Your task to perform on an android device: Turn on the flashlight Image 0: 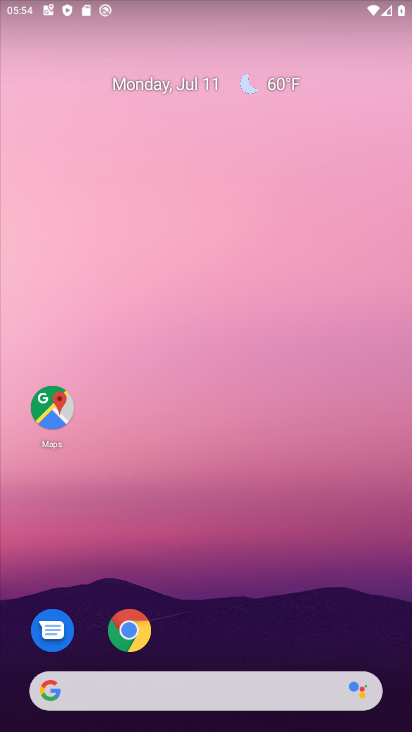
Step 0: click (187, 474)
Your task to perform on an android device: Turn on the flashlight Image 1: 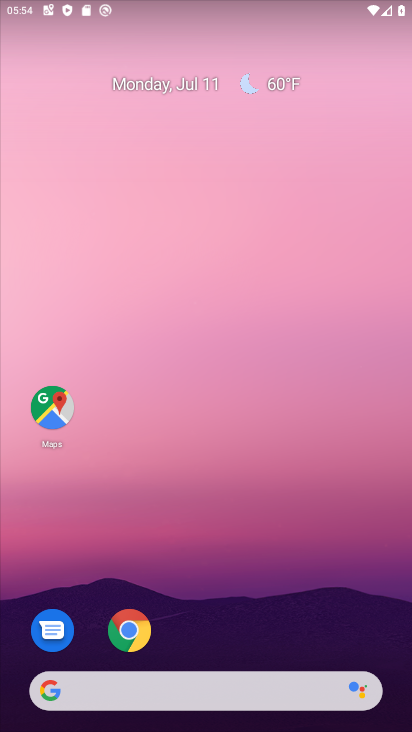
Step 1: drag from (251, 339) to (205, 146)
Your task to perform on an android device: Turn on the flashlight Image 2: 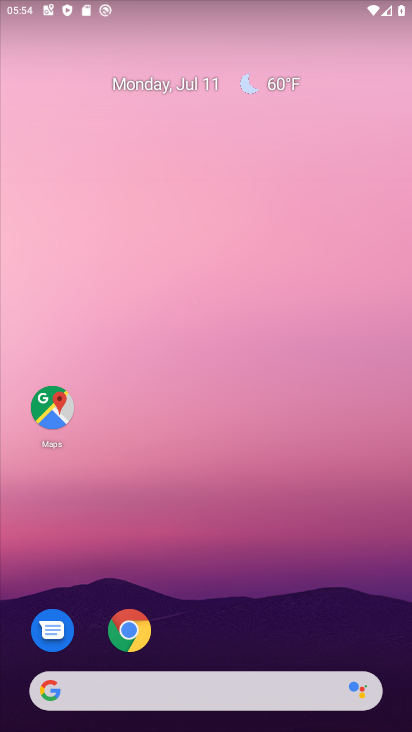
Step 2: click (205, 146)
Your task to perform on an android device: Turn on the flashlight Image 3: 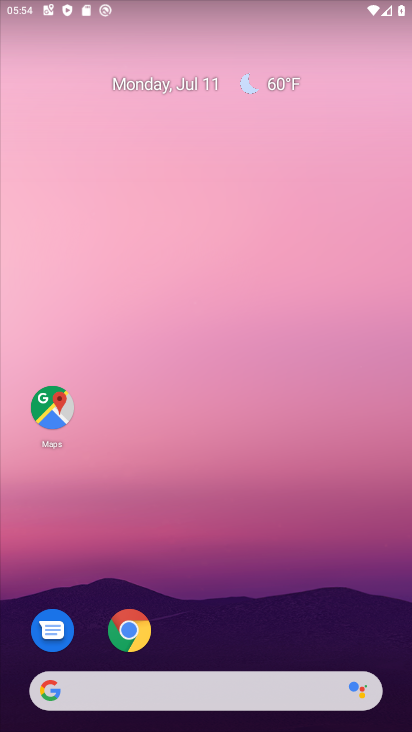
Step 3: click (205, 146)
Your task to perform on an android device: Turn on the flashlight Image 4: 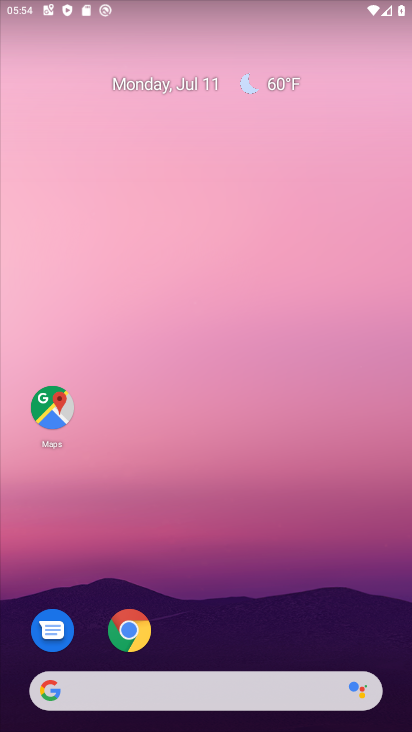
Step 4: drag from (255, 448) to (230, 396)
Your task to perform on an android device: Turn on the flashlight Image 5: 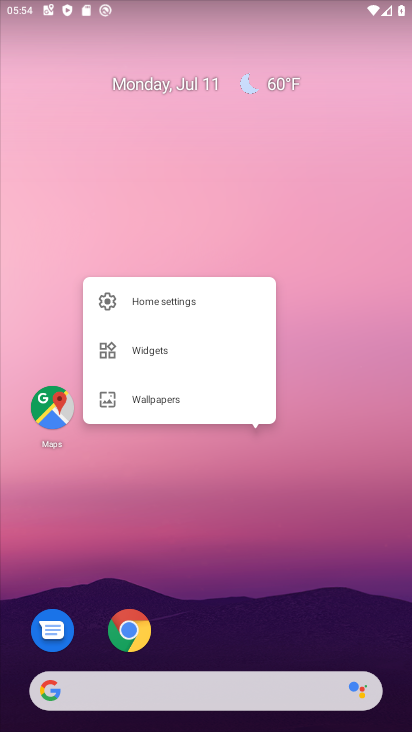
Step 5: click (209, 601)
Your task to perform on an android device: Turn on the flashlight Image 6: 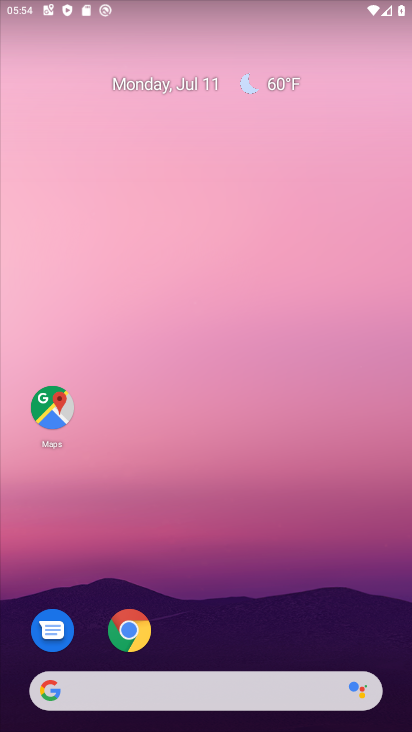
Step 6: click (209, 601)
Your task to perform on an android device: Turn on the flashlight Image 7: 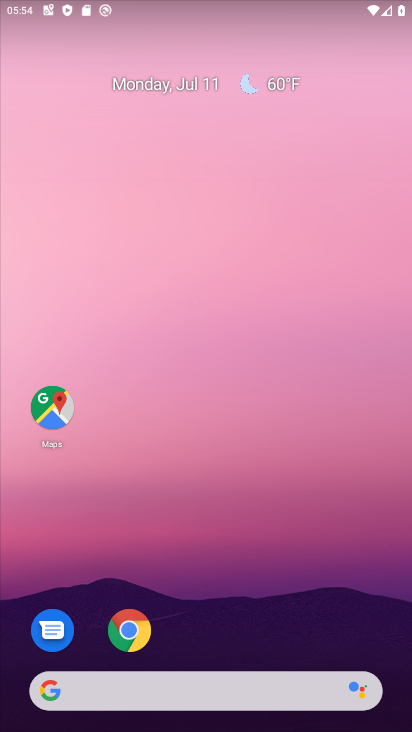
Step 7: task complete